Your task to perform on an android device: Search for "usb-b" on walmart, select the first entry, and add it to the cart. Image 0: 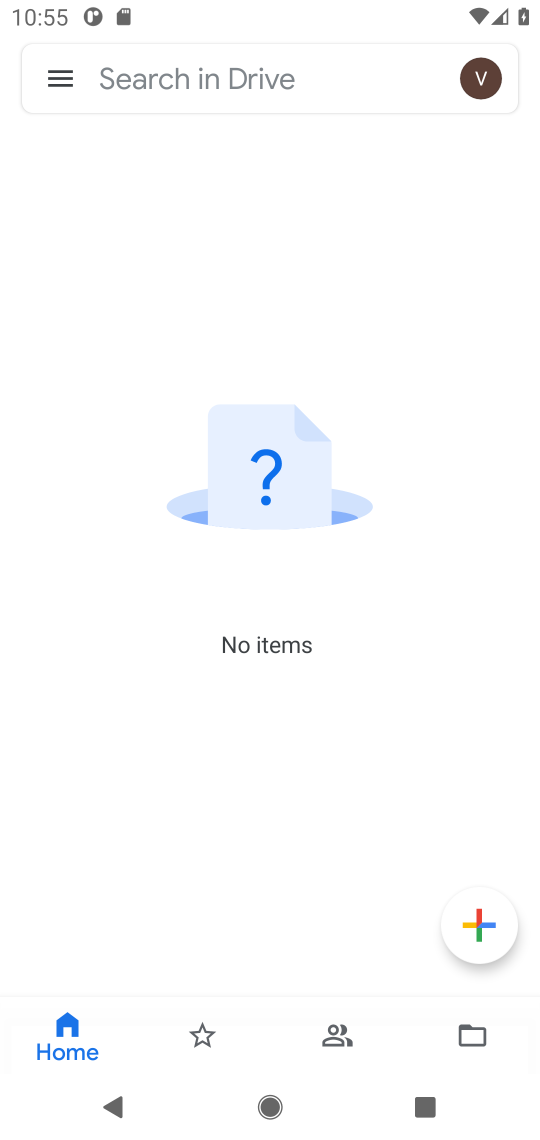
Step 0: press home button
Your task to perform on an android device: Search for "usb-b" on walmart, select the first entry, and add it to the cart. Image 1: 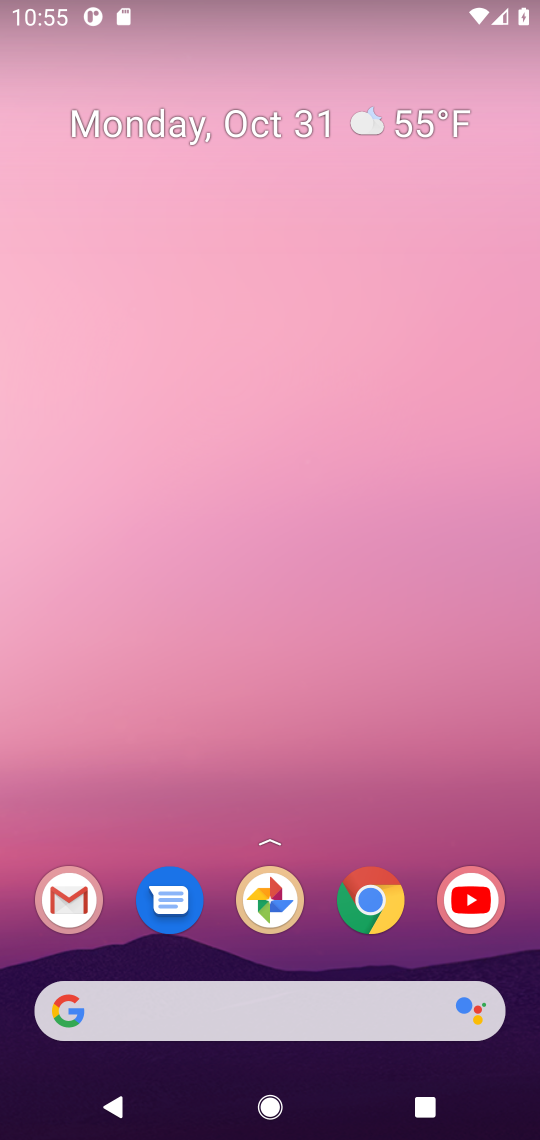
Step 1: click (367, 892)
Your task to perform on an android device: Search for "usb-b" on walmart, select the first entry, and add it to the cart. Image 2: 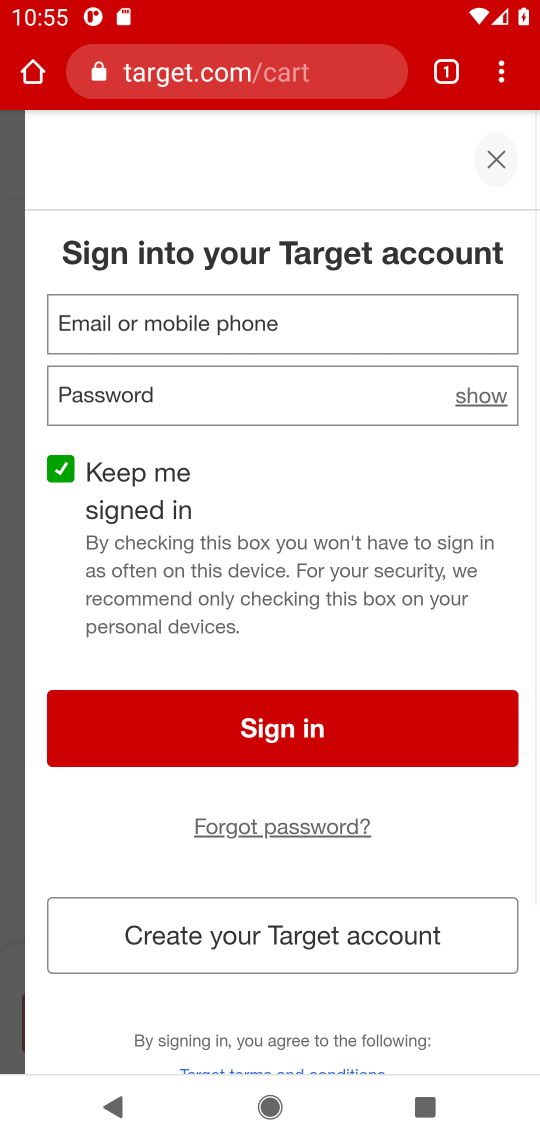
Step 2: click (215, 83)
Your task to perform on an android device: Search for "usb-b" on walmart, select the first entry, and add it to the cart. Image 3: 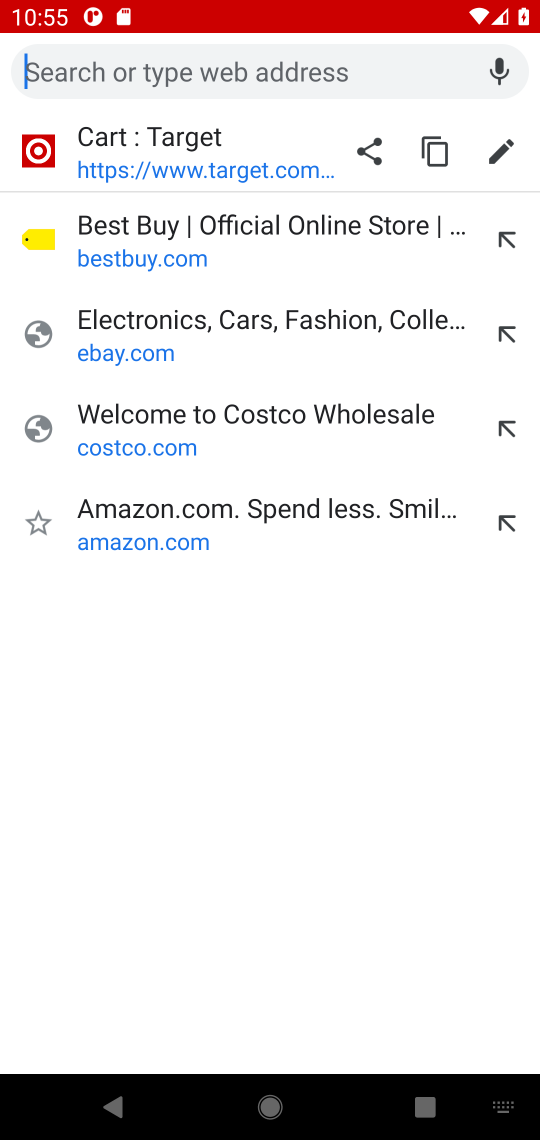
Step 3: type "walmart.com"
Your task to perform on an android device: Search for "usb-b" on walmart, select the first entry, and add it to the cart. Image 4: 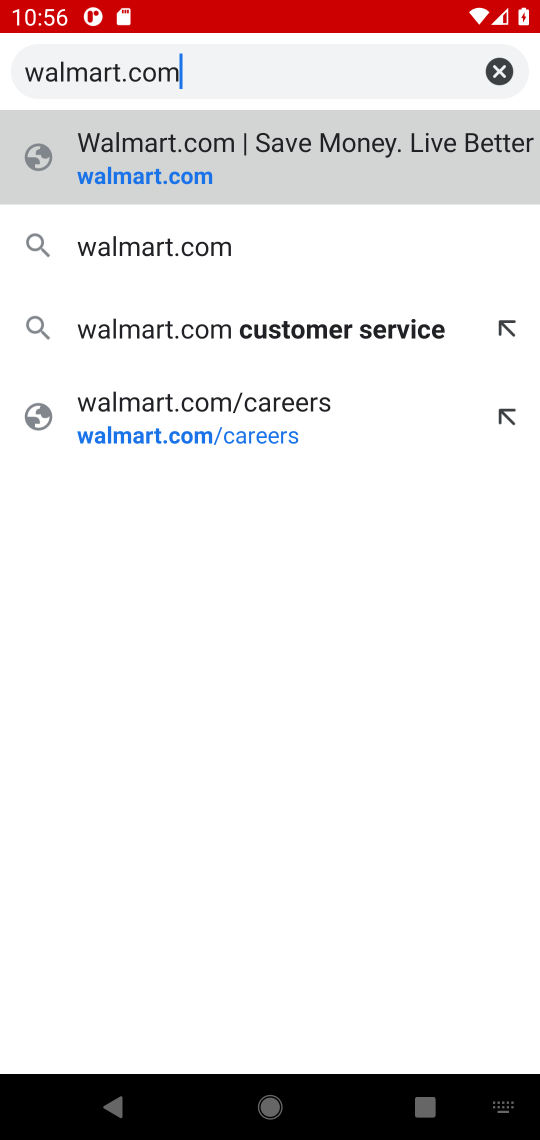
Step 4: click (158, 176)
Your task to perform on an android device: Search for "usb-b" on walmart, select the first entry, and add it to the cart. Image 5: 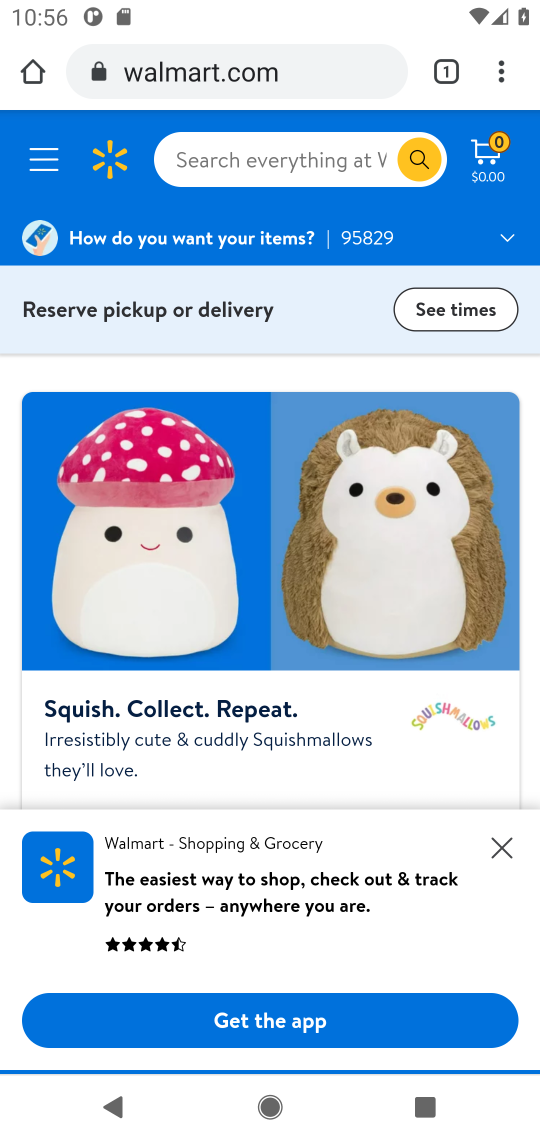
Step 5: click (214, 167)
Your task to perform on an android device: Search for "usb-b" on walmart, select the first entry, and add it to the cart. Image 6: 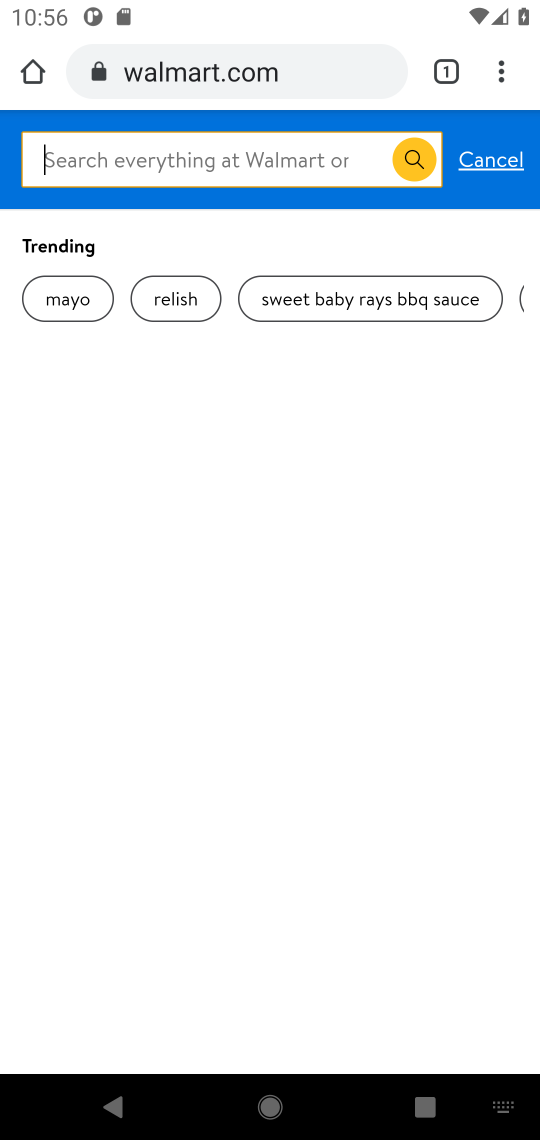
Step 6: type "usb-b"
Your task to perform on an android device: Search for "usb-b" on walmart, select the first entry, and add it to the cart. Image 7: 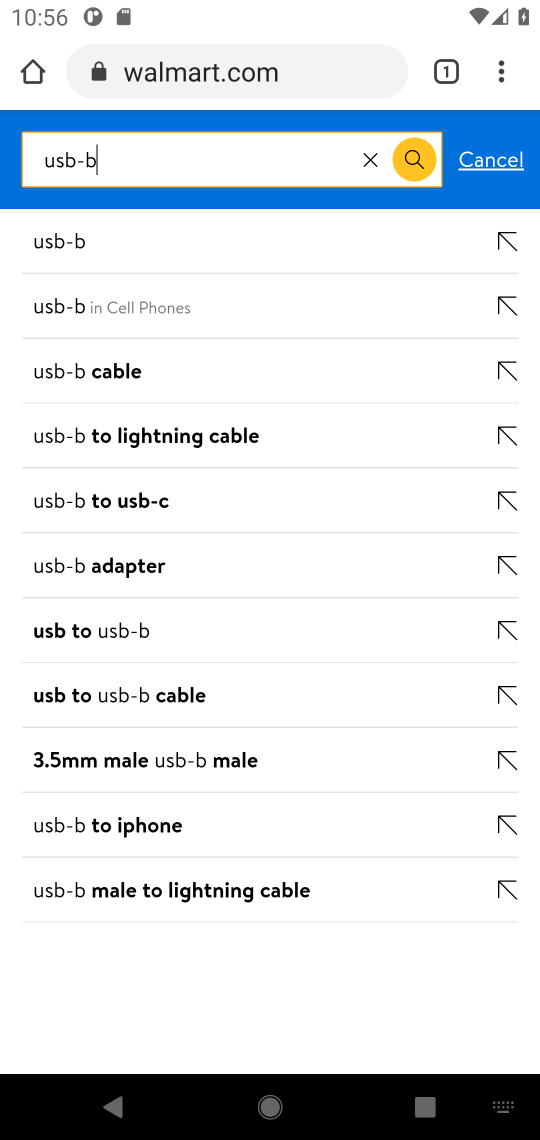
Step 7: click (63, 252)
Your task to perform on an android device: Search for "usb-b" on walmart, select the first entry, and add it to the cart. Image 8: 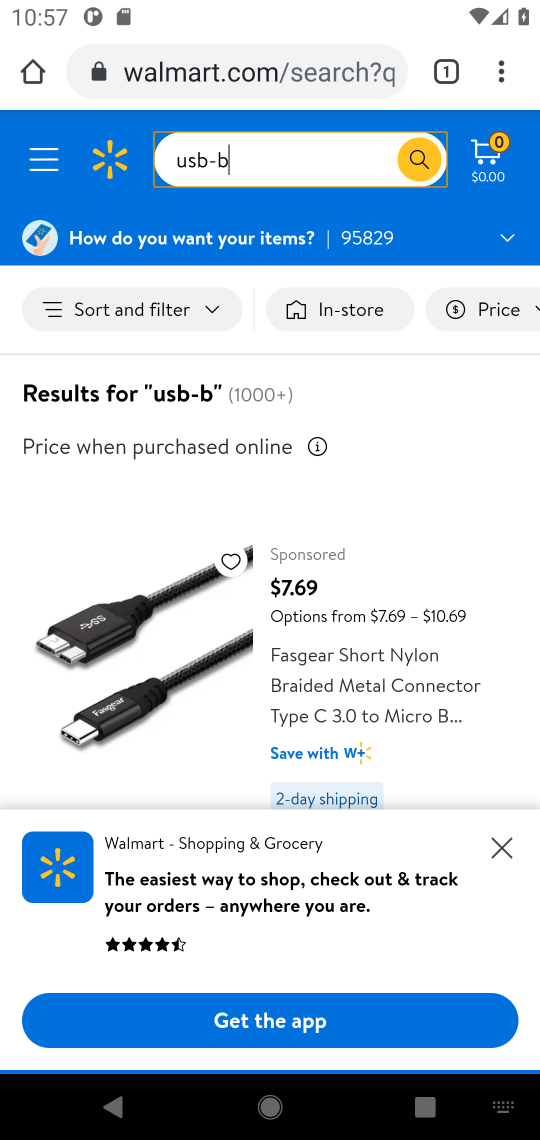
Step 8: drag from (210, 703) to (206, 540)
Your task to perform on an android device: Search for "usb-b" on walmart, select the first entry, and add it to the cart. Image 9: 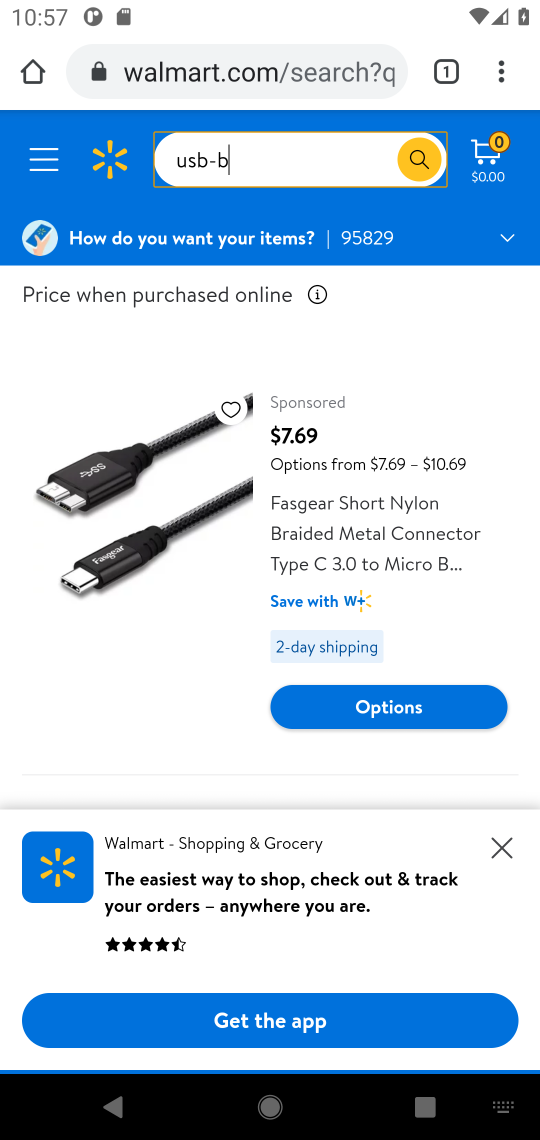
Step 9: drag from (150, 478) to (154, 698)
Your task to perform on an android device: Search for "usb-b" on walmart, select the first entry, and add it to the cart. Image 10: 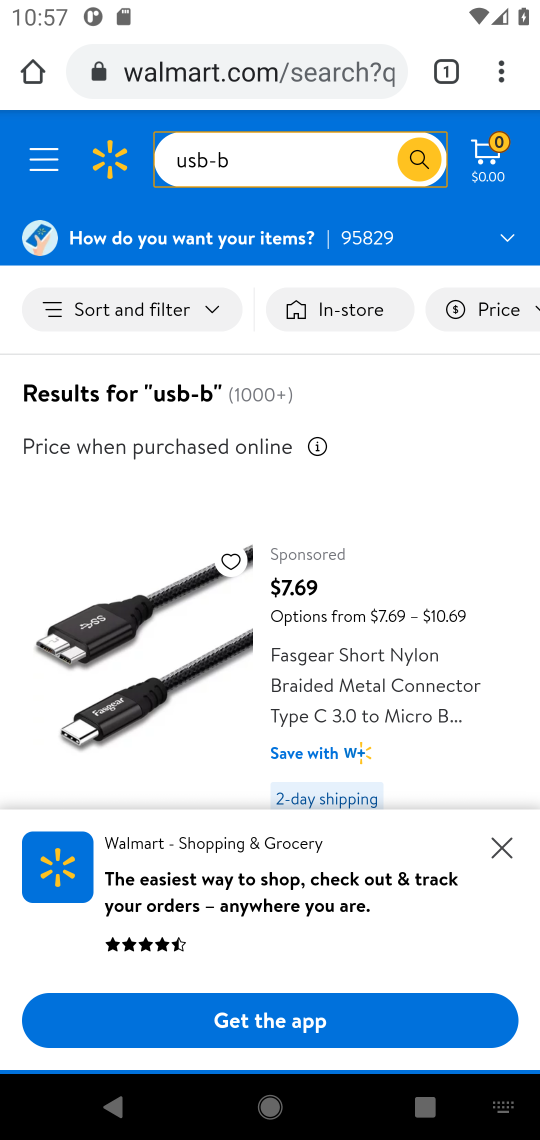
Step 10: drag from (174, 684) to (156, 374)
Your task to perform on an android device: Search for "usb-b" on walmart, select the first entry, and add it to the cart. Image 11: 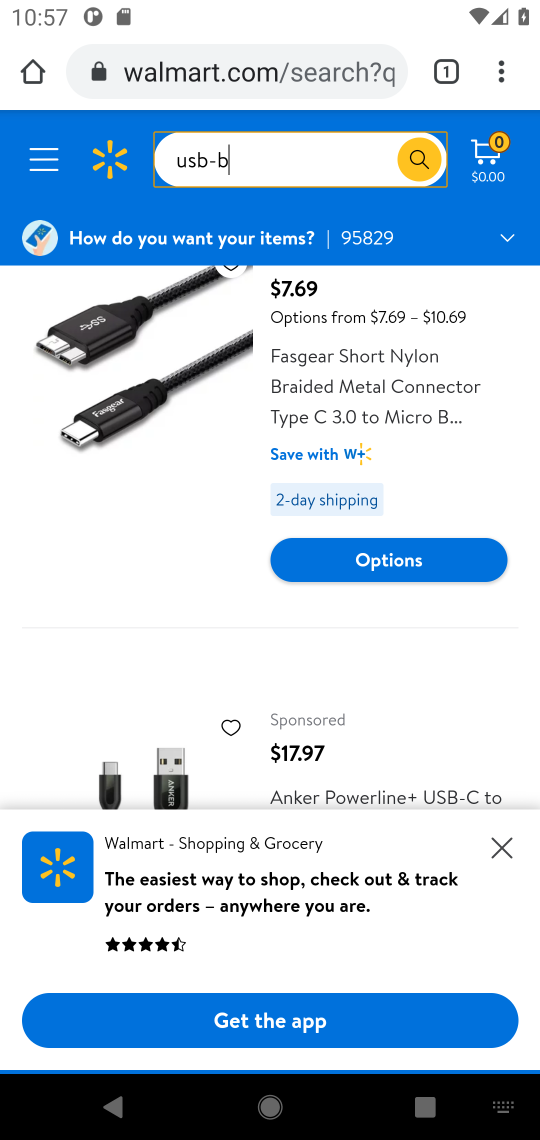
Step 11: drag from (162, 659) to (165, 454)
Your task to perform on an android device: Search for "usb-b" on walmart, select the first entry, and add it to the cart. Image 12: 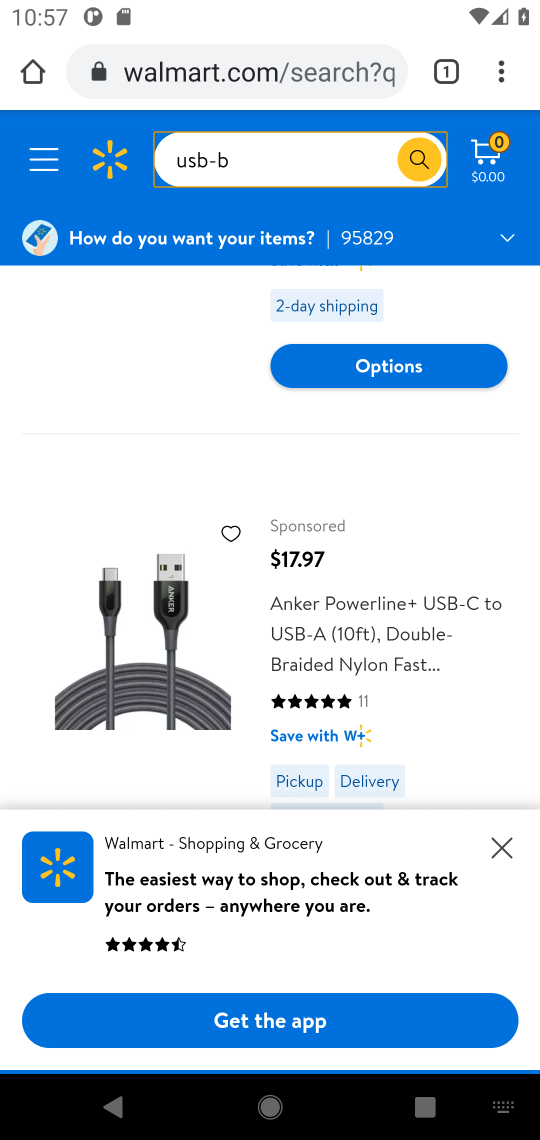
Step 12: drag from (150, 576) to (167, 750)
Your task to perform on an android device: Search for "usb-b" on walmart, select the first entry, and add it to the cart. Image 13: 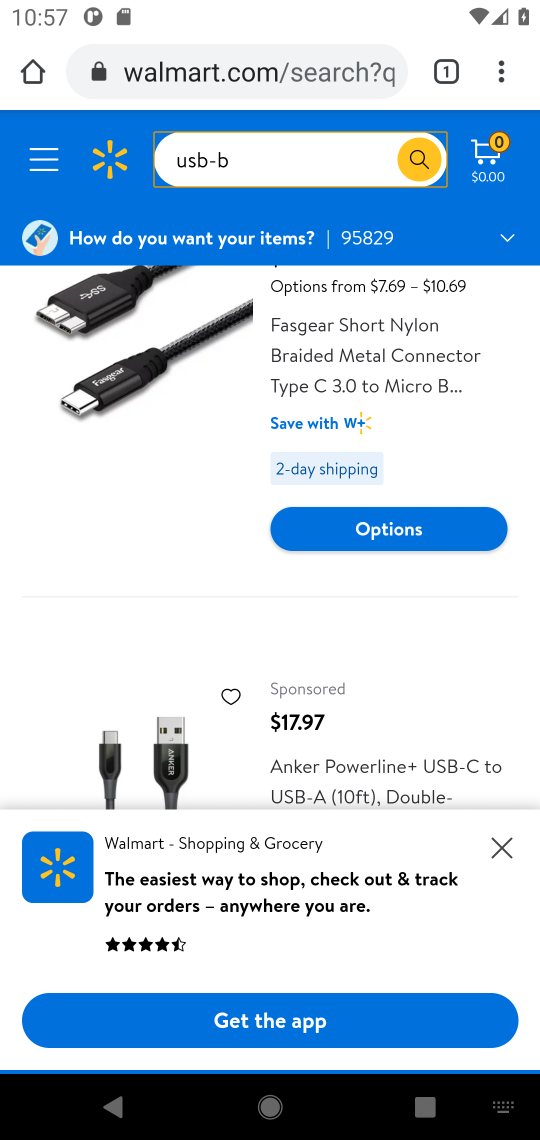
Step 13: click (206, 341)
Your task to perform on an android device: Search for "usb-b" on walmart, select the first entry, and add it to the cart. Image 14: 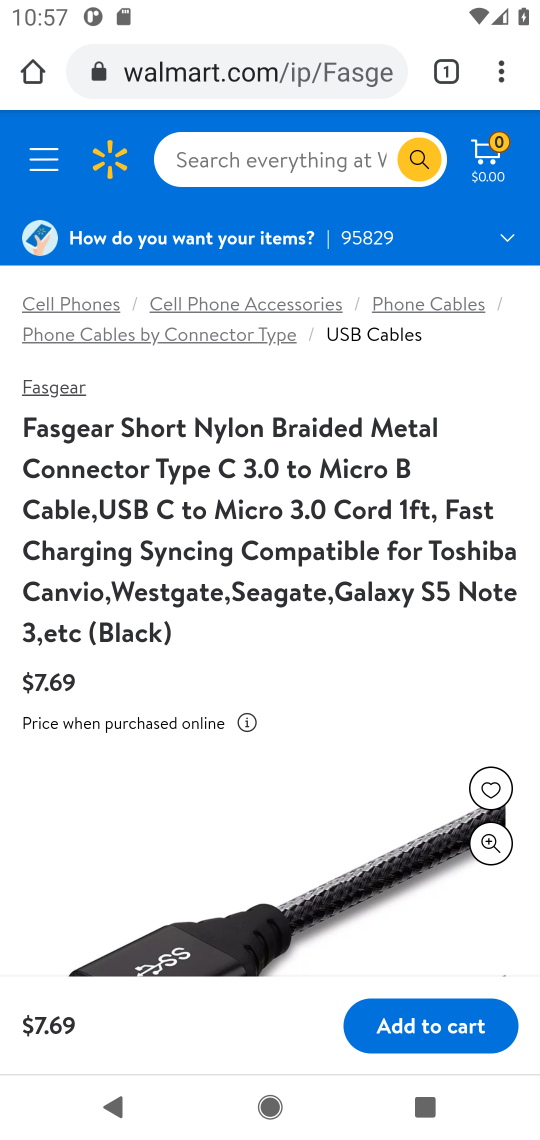
Step 14: drag from (218, 806) to (214, 380)
Your task to perform on an android device: Search for "usb-b" on walmart, select the first entry, and add it to the cart. Image 15: 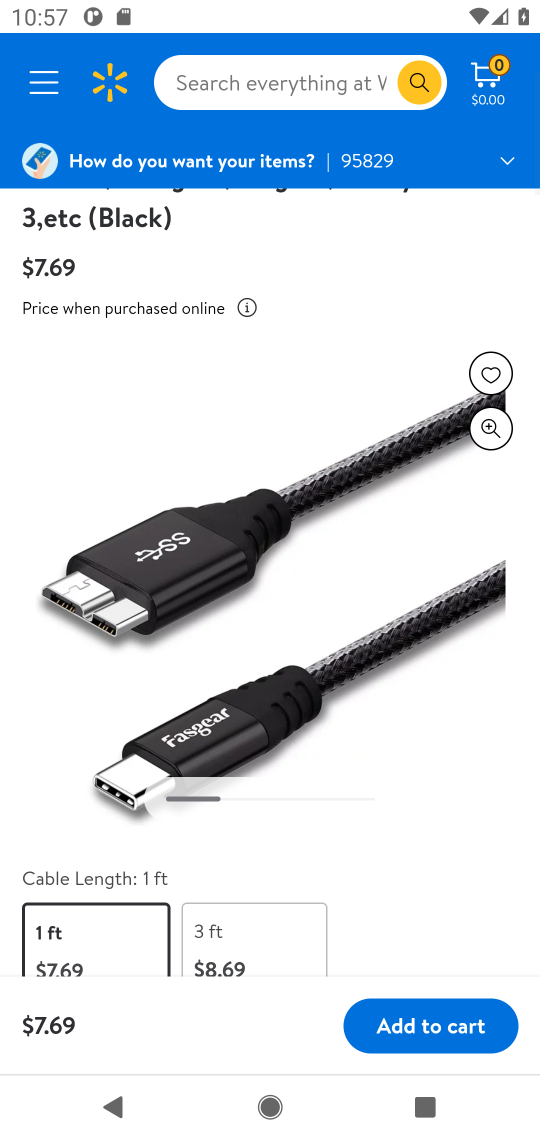
Step 15: drag from (201, 708) to (211, 275)
Your task to perform on an android device: Search for "usb-b" on walmart, select the first entry, and add it to the cart. Image 16: 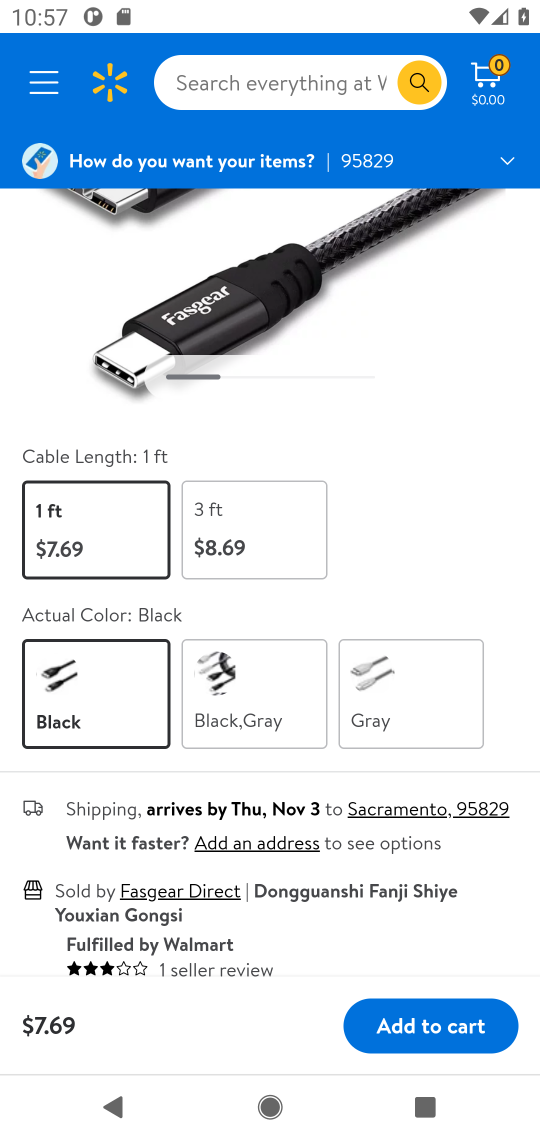
Step 16: drag from (236, 751) to (244, 450)
Your task to perform on an android device: Search for "usb-b" on walmart, select the first entry, and add it to the cart. Image 17: 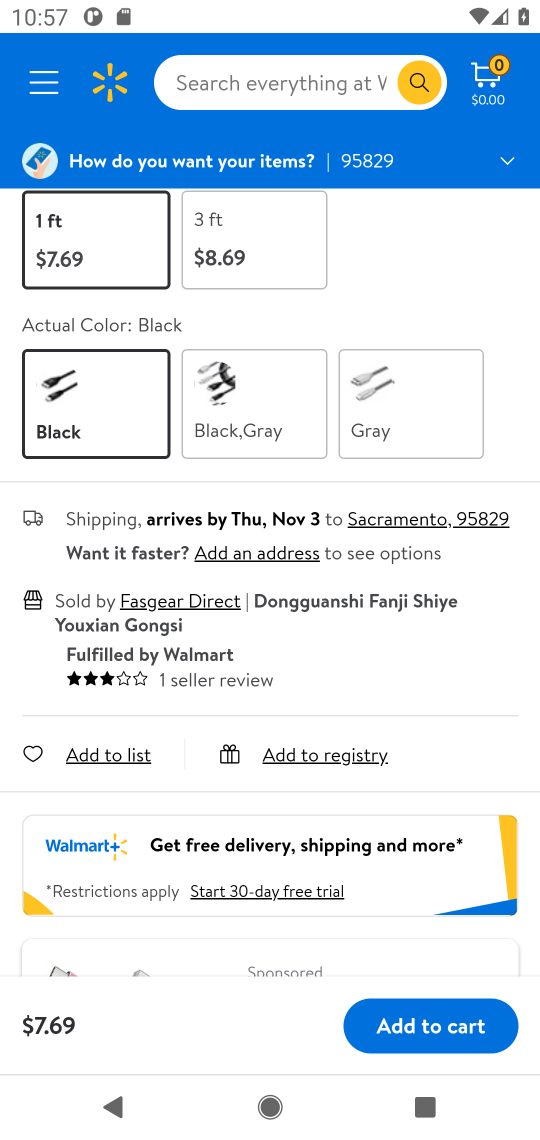
Step 17: drag from (234, 778) to (227, 403)
Your task to perform on an android device: Search for "usb-b" on walmart, select the first entry, and add it to the cart. Image 18: 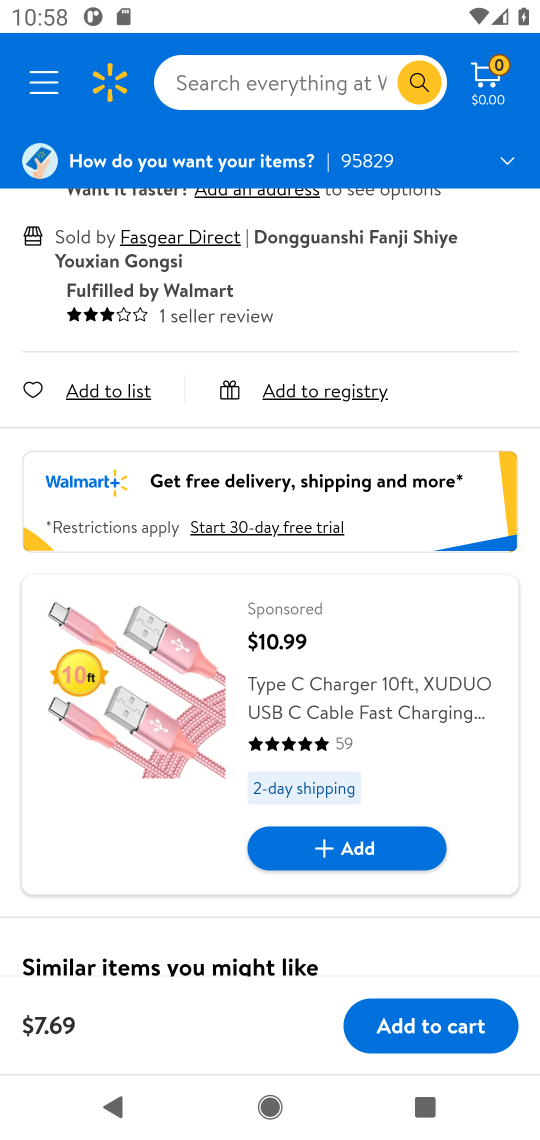
Step 18: click (421, 1035)
Your task to perform on an android device: Search for "usb-b" on walmart, select the first entry, and add it to the cart. Image 19: 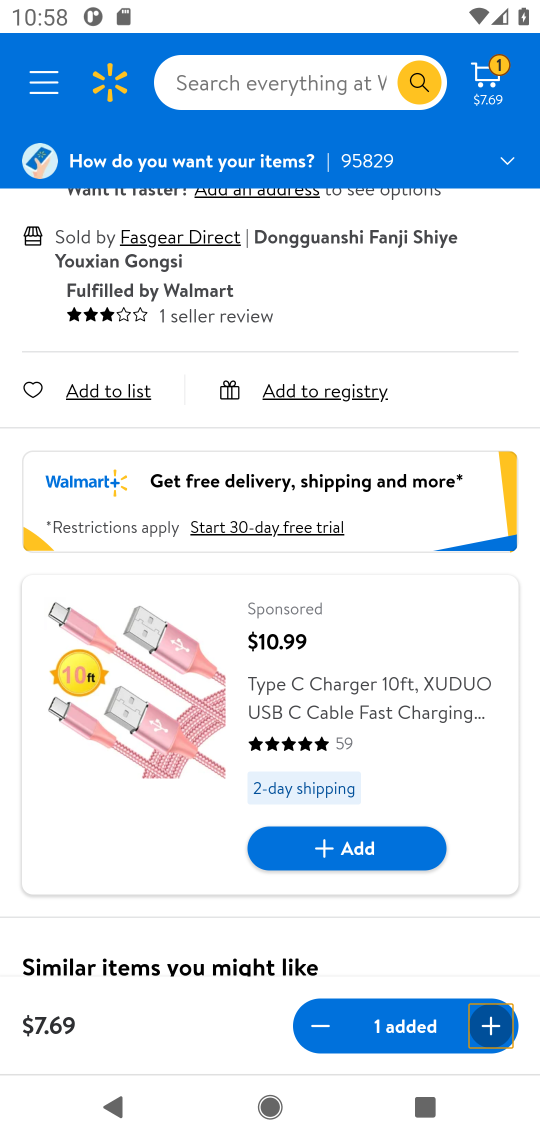
Step 19: task complete